Your task to perform on an android device: What's the weather? Image 0: 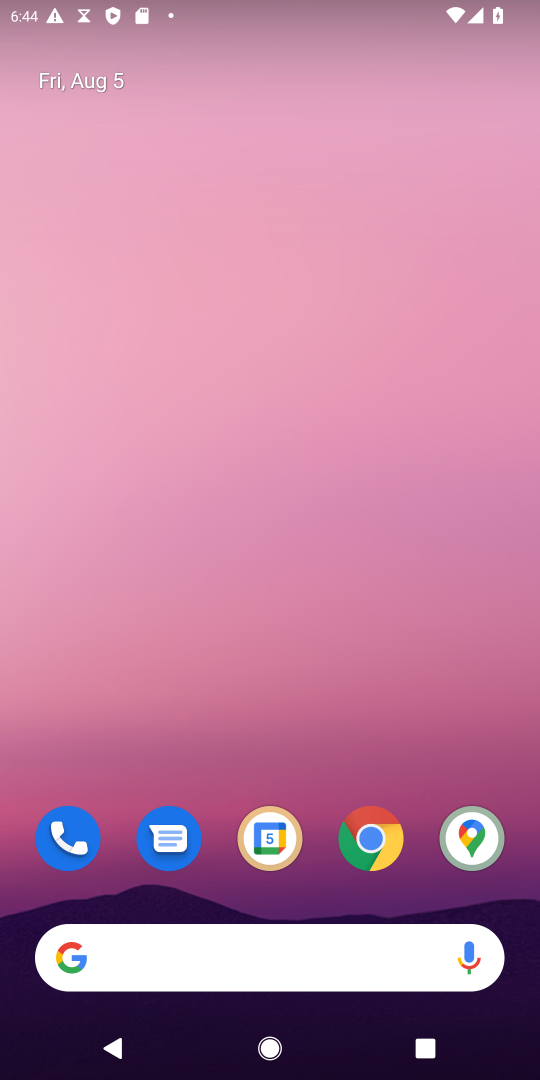
Step 0: press home button
Your task to perform on an android device: What's the weather? Image 1: 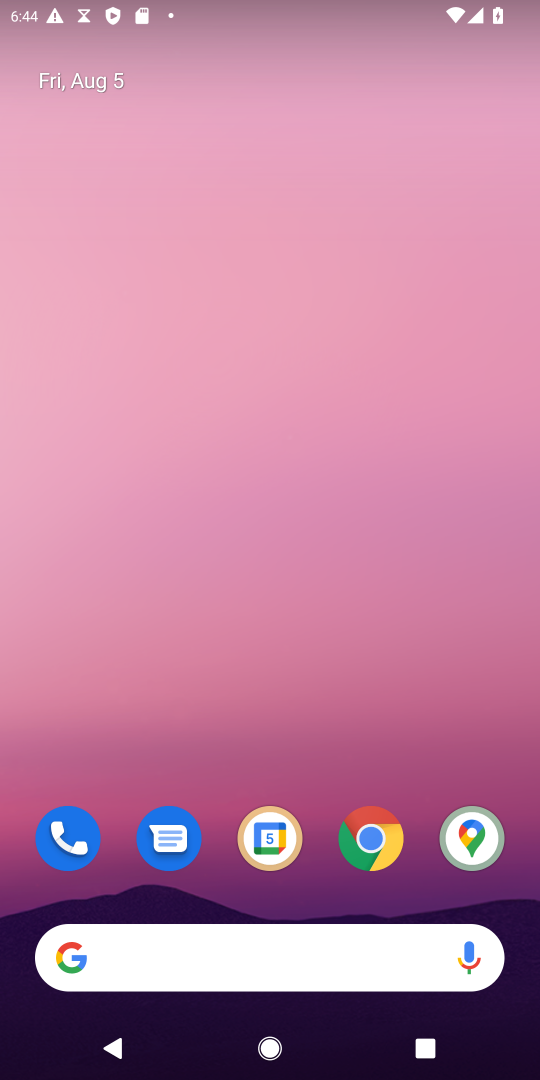
Step 1: click (68, 951)
Your task to perform on an android device: What's the weather? Image 2: 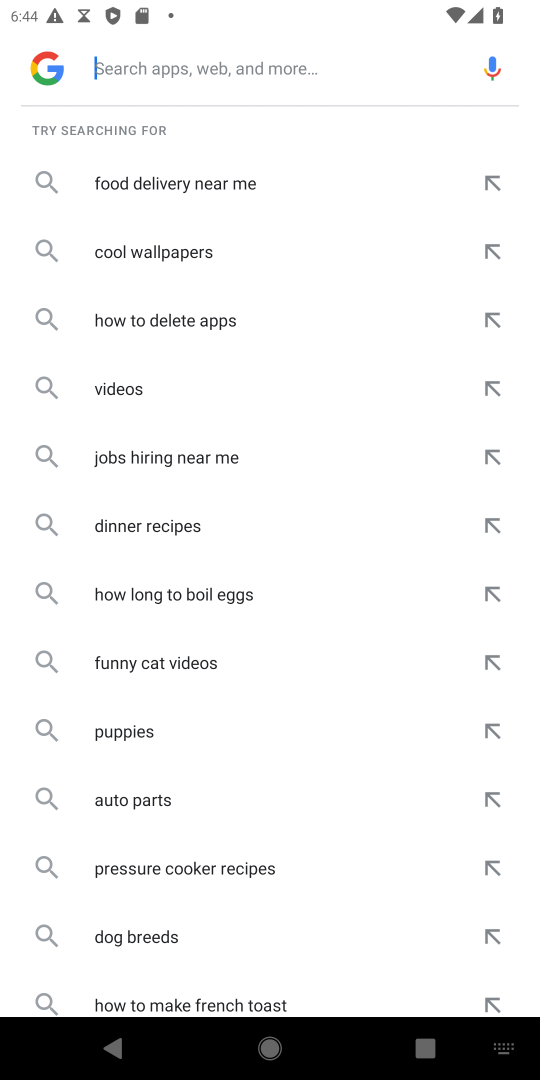
Step 2: type " weather?"
Your task to perform on an android device: What's the weather? Image 3: 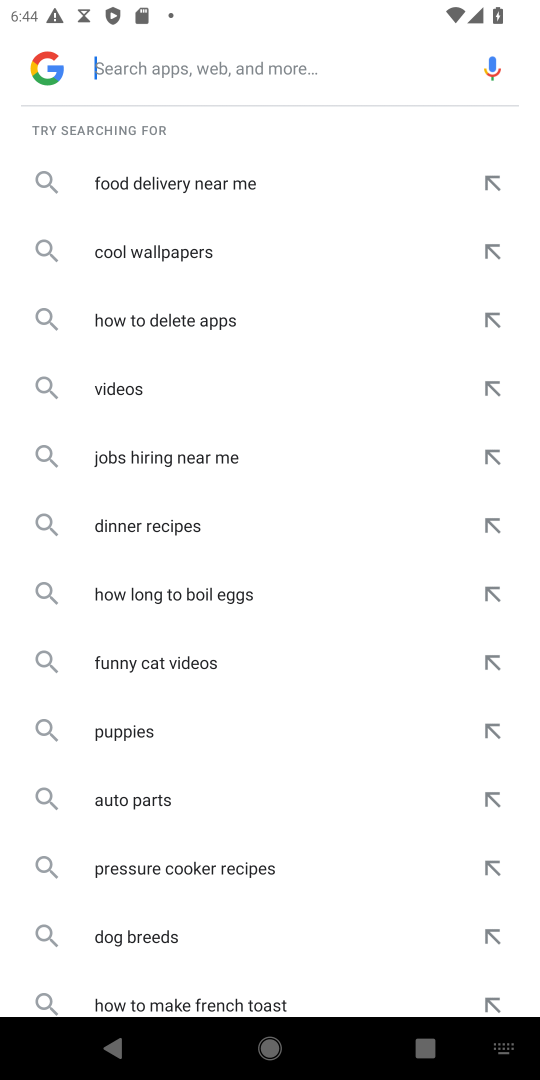
Step 3: click (167, 57)
Your task to perform on an android device: What's the weather? Image 4: 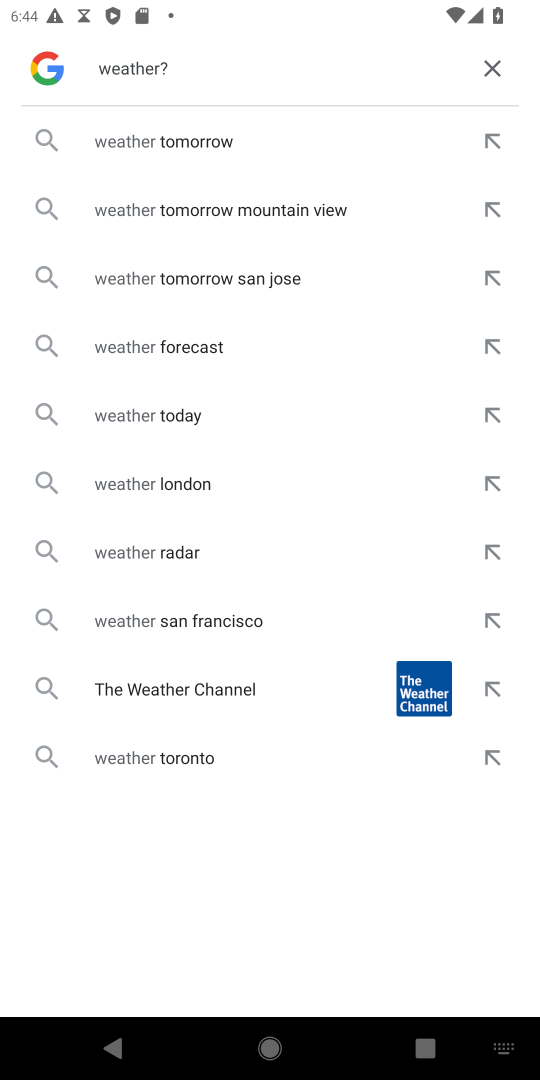
Step 4: press enter
Your task to perform on an android device: What's the weather? Image 5: 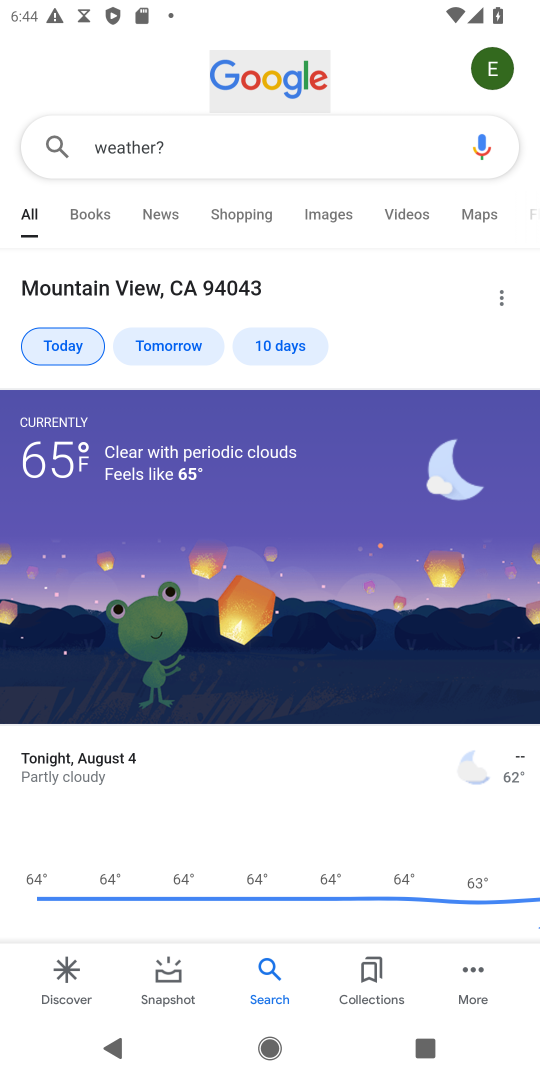
Step 5: task complete